Your task to perform on an android device: Go to wifi settings Image 0: 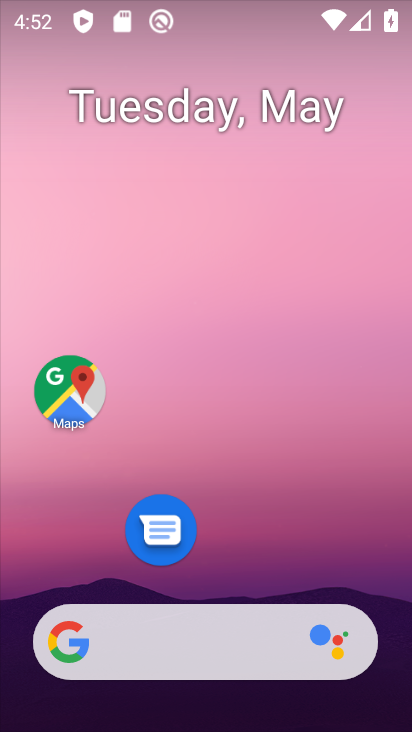
Step 0: drag from (296, 561) to (339, 0)
Your task to perform on an android device: Go to wifi settings Image 1: 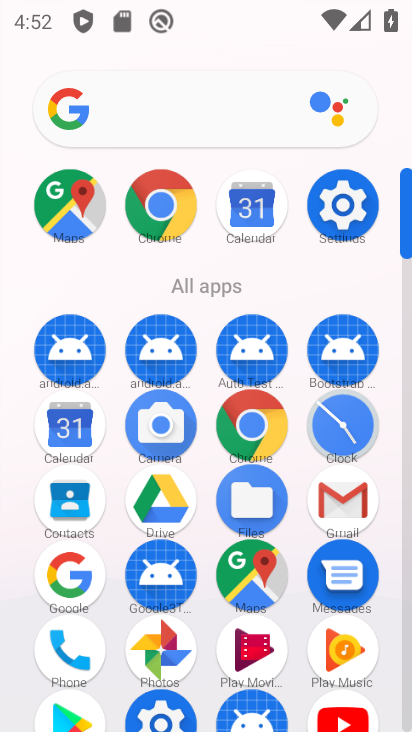
Step 1: click (351, 186)
Your task to perform on an android device: Go to wifi settings Image 2: 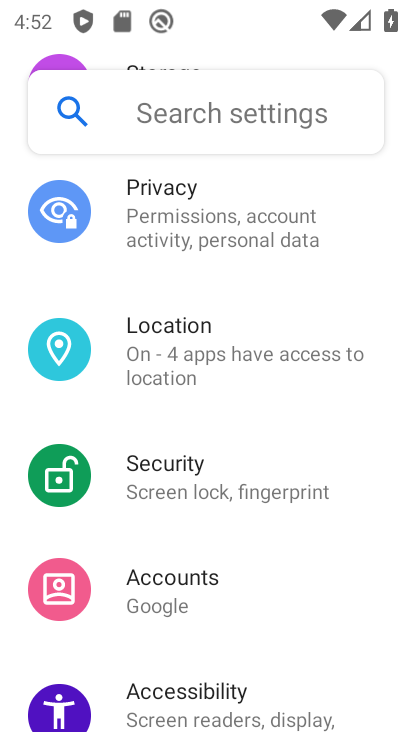
Step 2: drag from (269, 191) to (216, 602)
Your task to perform on an android device: Go to wifi settings Image 3: 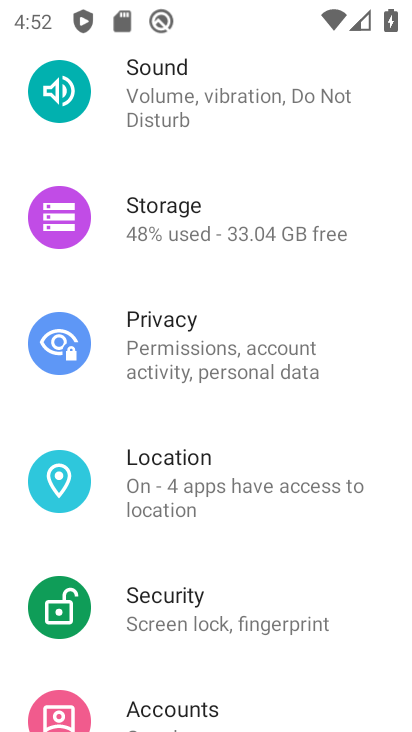
Step 3: drag from (216, 151) to (205, 630)
Your task to perform on an android device: Go to wifi settings Image 4: 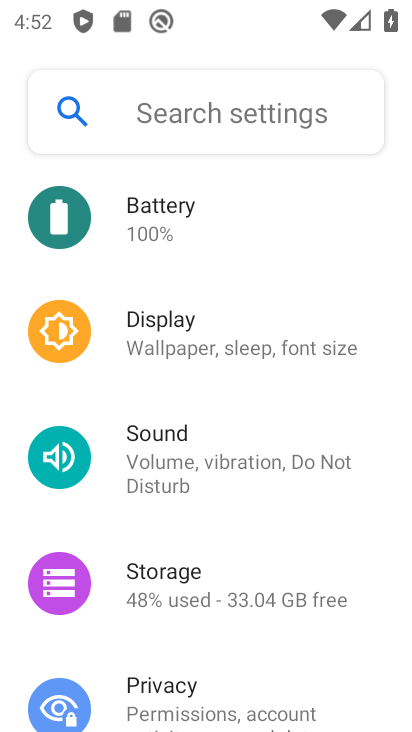
Step 4: drag from (231, 177) to (296, 717)
Your task to perform on an android device: Go to wifi settings Image 5: 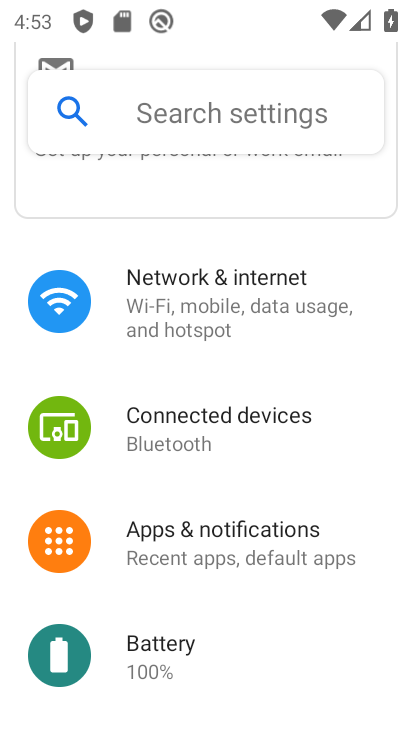
Step 5: click (191, 293)
Your task to perform on an android device: Go to wifi settings Image 6: 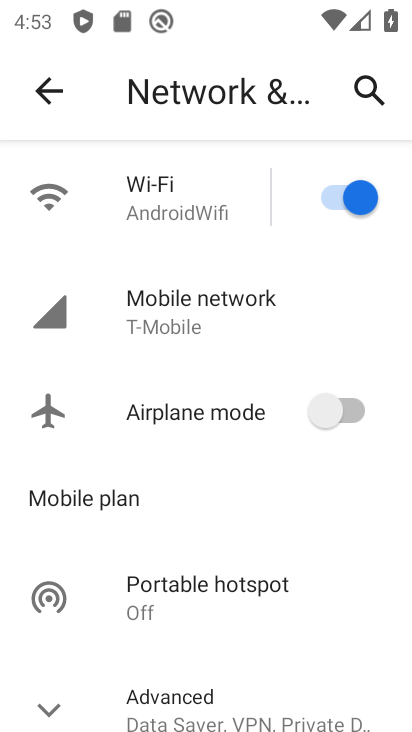
Step 6: click (222, 175)
Your task to perform on an android device: Go to wifi settings Image 7: 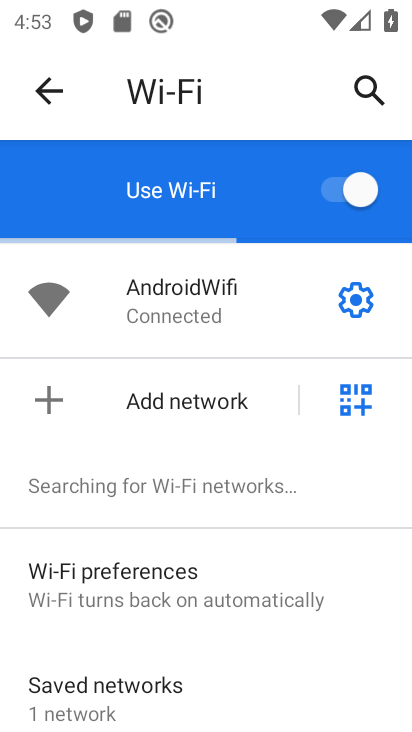
Step 7: task complete